Your task to perform on an android device: What's a good restaurant in Miami? Image 0: 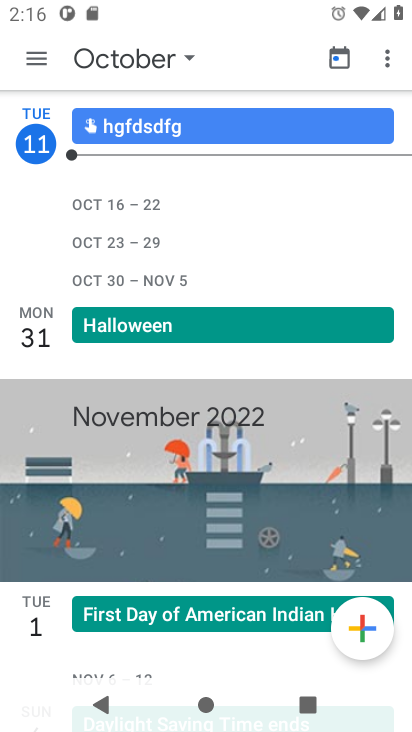
Step 0: press home button
Your task to perform on an android device: What's a good restaurant in Miami? Image 1: 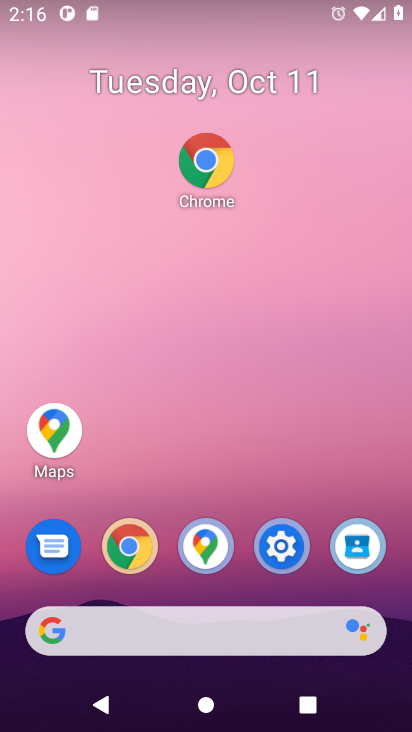
Step 1: click (214, 164)
Your task to perform on an android device: What's a good restaurant in Miami? Image 2: 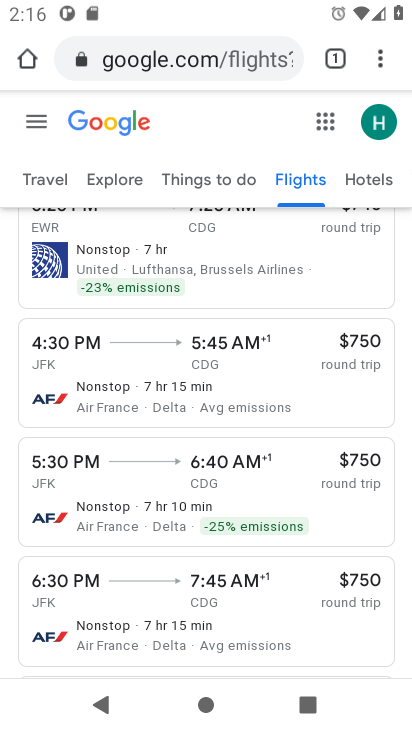
Step 2: click (200, 53)
Your task to perform on an android device: What's a good restaurant in Miami? Image 3: 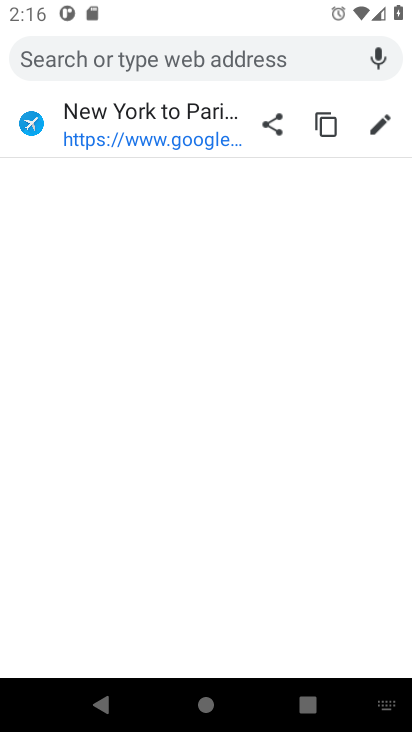
Step 3: type "good restaurant in Miami"
Your task to perform on an android device: What's a good restaurant in Miami? Image 4: 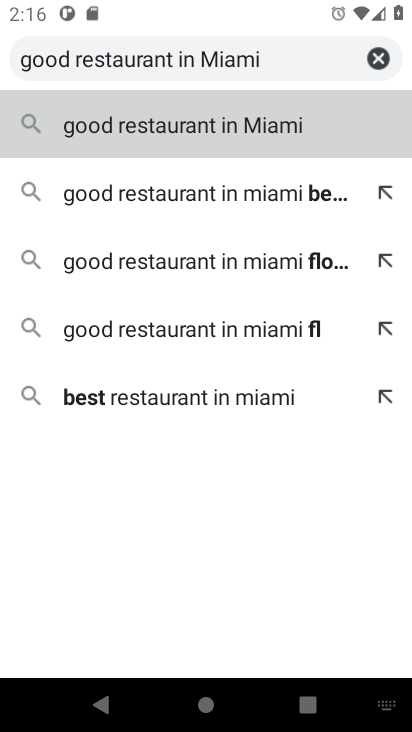
Step 4: type ""
Your task to perform on an android device: What's a good restaurant in Miami? Image 5: 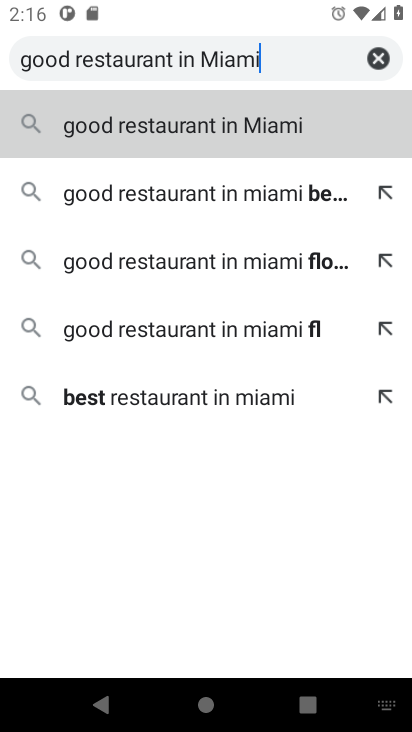
Step 5: press enter
Your task to perform on an android device: What's a good restaurant in Miami? Image 6: 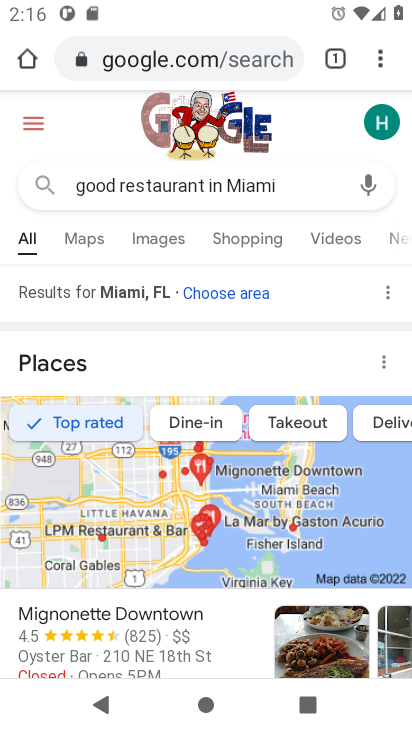
Step 6: task complete